Your task to perform on an android device: open app "Microsoft Outlook" (install if not already installed) Image 0: 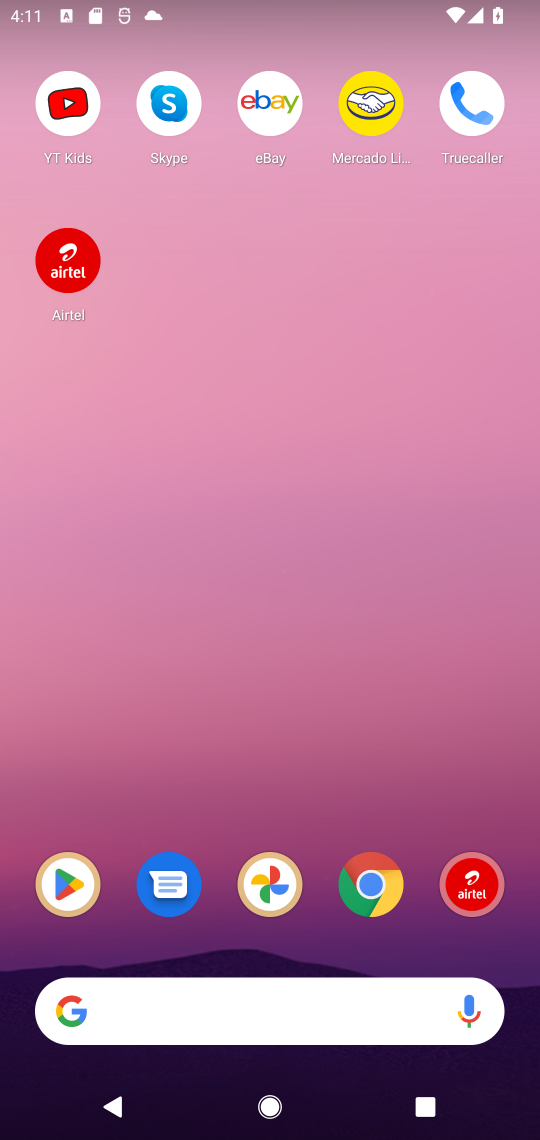
Step 0: click (57, 881)
Your task to perform on an android device: open app "Microsoft Outlook" (install if not already installed) Image 1: 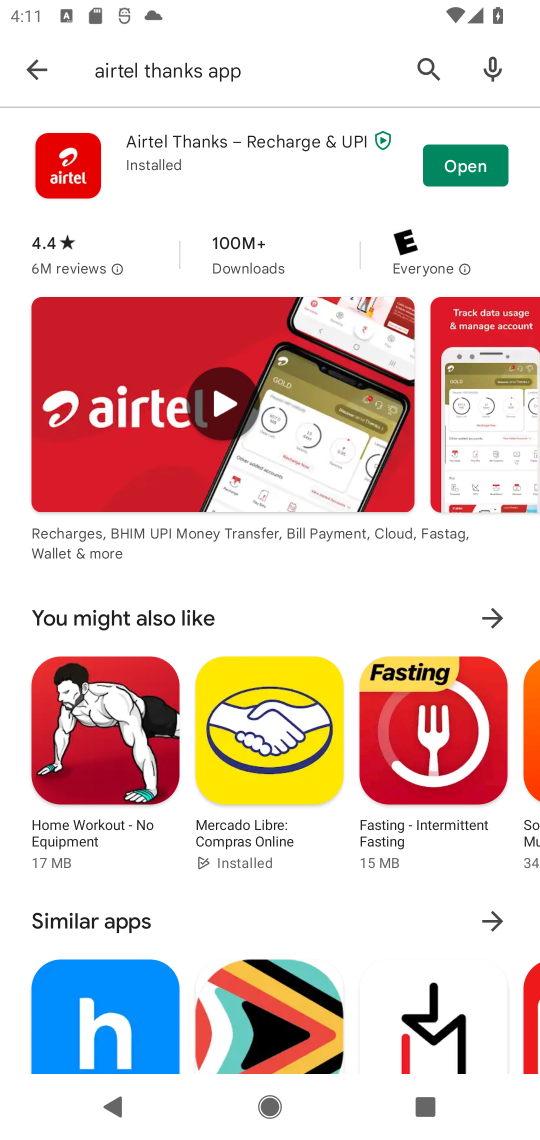
Step 1: click (38, 69)
Your task to perform on an android device: open app "Microsoft Outlook" (install if not already installed) Image 2: 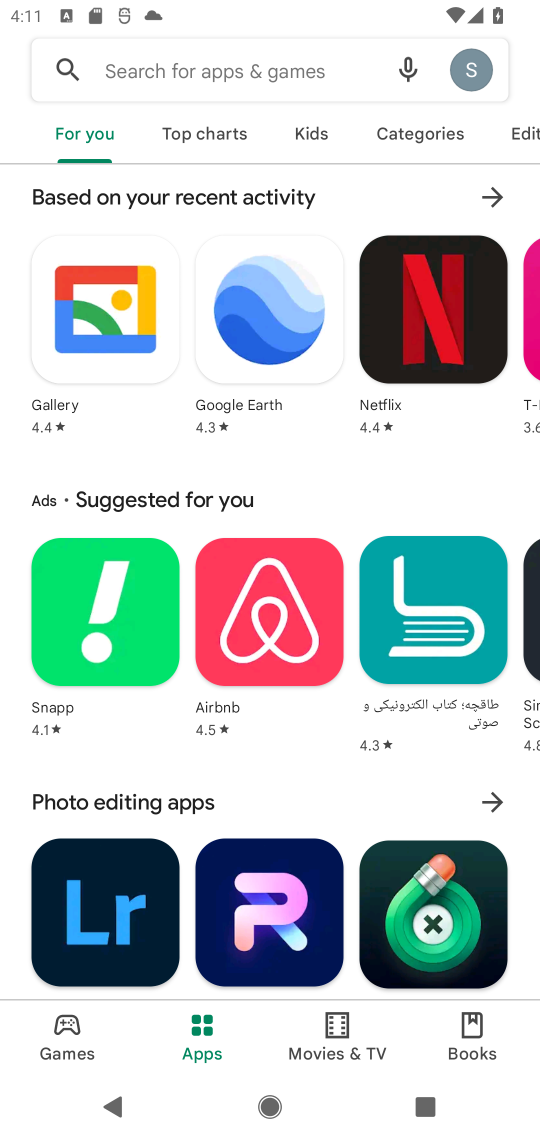
Step 2: click (168, 68)
Your task to perform on an android device: open app "Microsoft Outlook" (install if not already installed) Image 3: 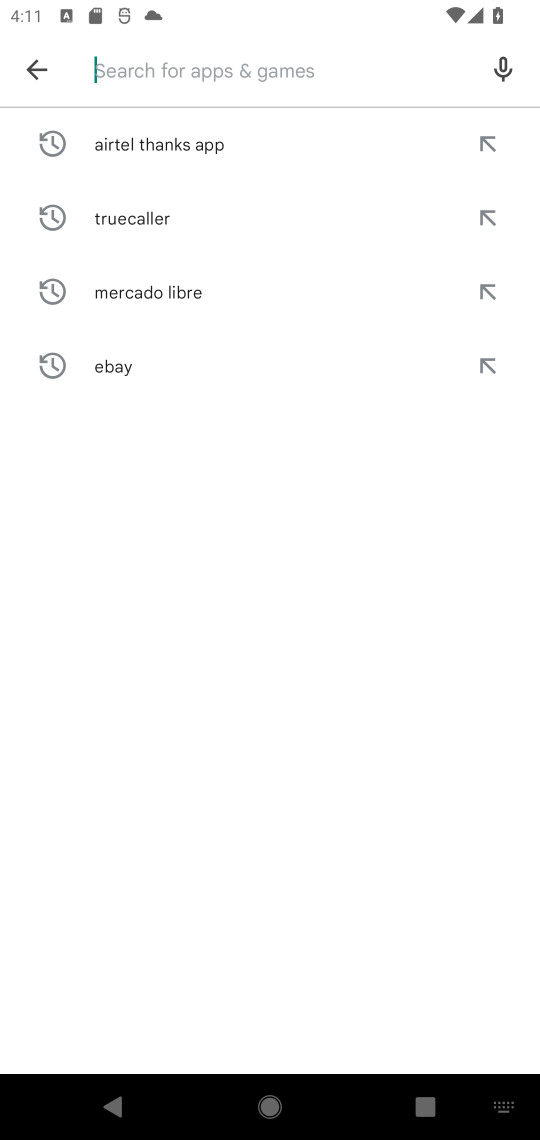
Step 3: type "Microsoft Outlook"
Your task to perform on an android device: open app "Microsoft Outlook" (install if not already installed) Image 4: 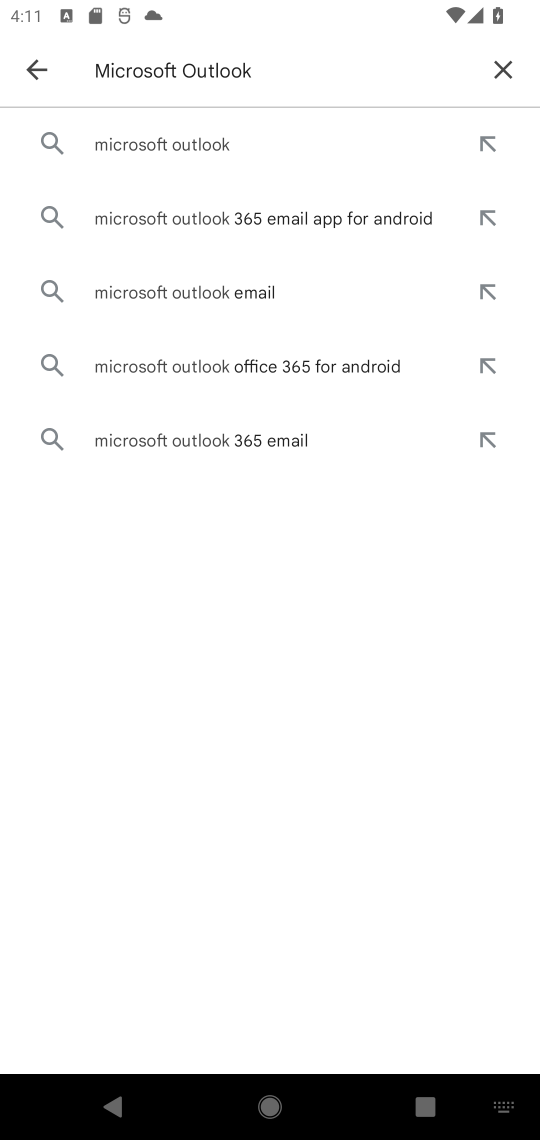
Step 4: click (148, 154)
Your task to perform on an android device: open app "Microsoft Outlook" (install if not already installed) Image 5: 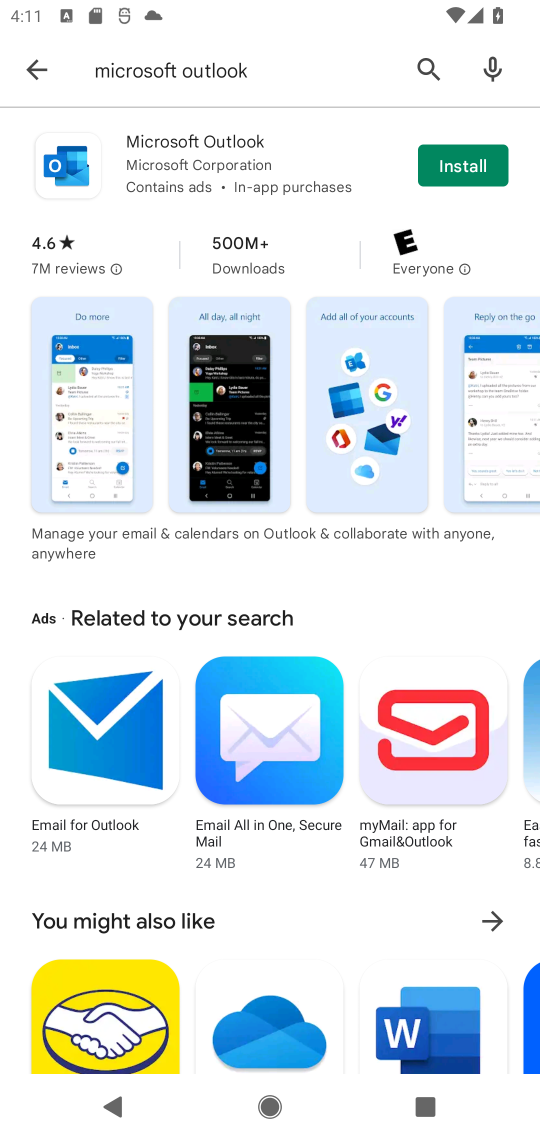
Step 5: click (451, 178)
Your task to perform on an android device: open app "Microsoft Outlook" (install if not already installed) Image 6: 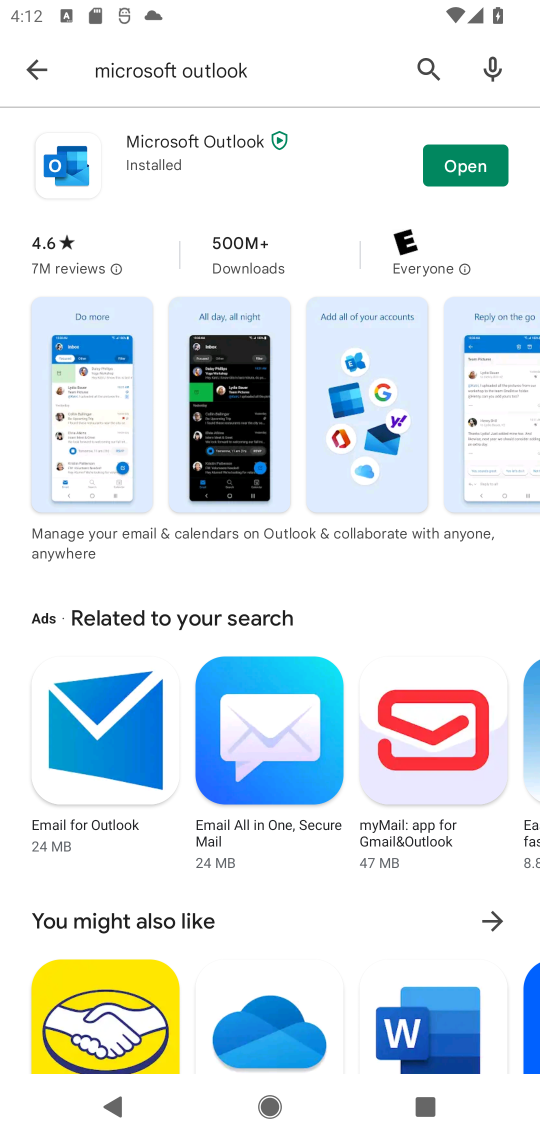
Step 6: click (446, 162)
Your task to perform on an android device: open app "Microsoft Outlook" (install if not already installed) Image 7: 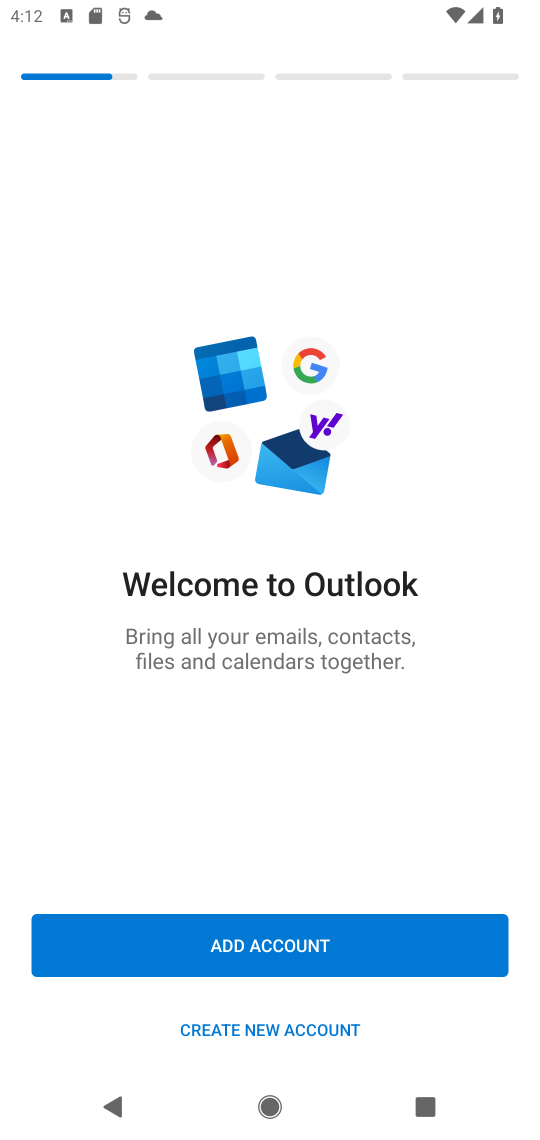
Step 7: task complete